Your task to perform on an android device: Open settings Image 0: 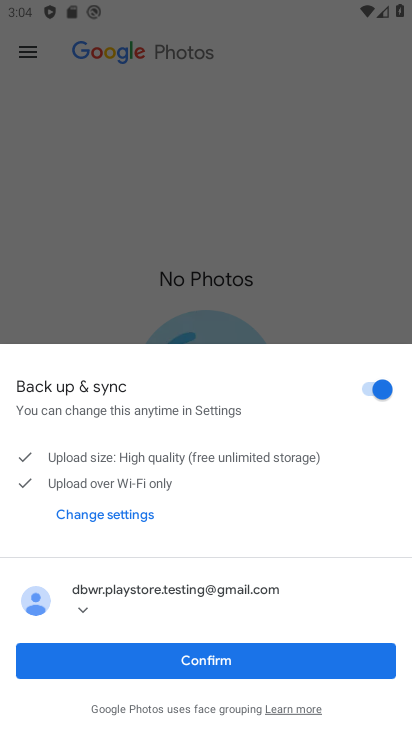
Step 0: click (218, 661)
Your task to perform on an android device: Open settings Image 1: 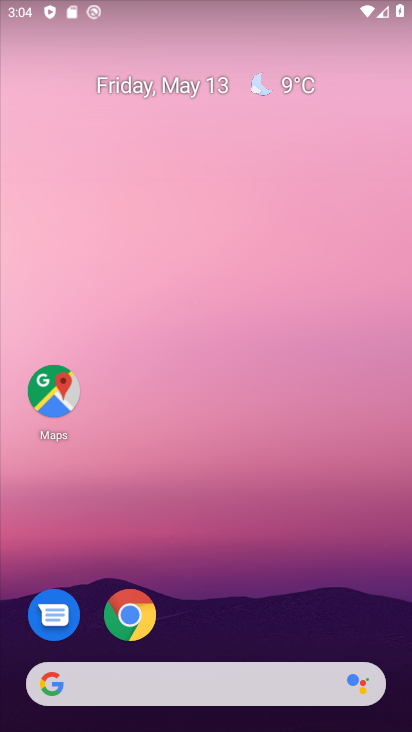
Step 1: drag from (306, 687) to (198, 118)
Your task to perform on an android device: Open settings Image 2: 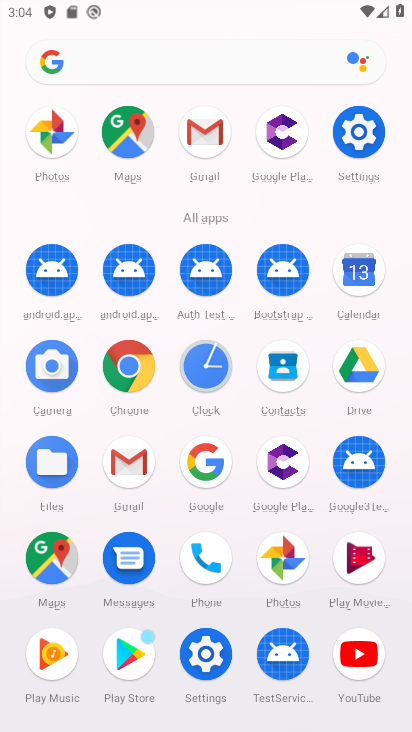
Step 2: drag from (293, 571) to (191, 160)
Your task to perform on an android device: Open settings Image 3: 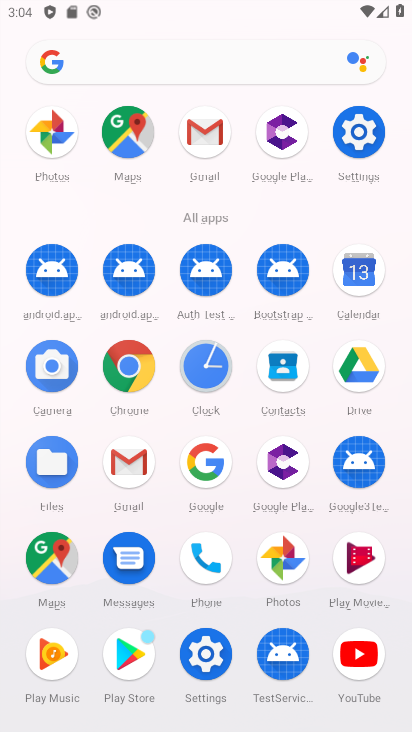
Step 3: click (252, 333)
Your task to perform on an android device: Open settings Image 4: 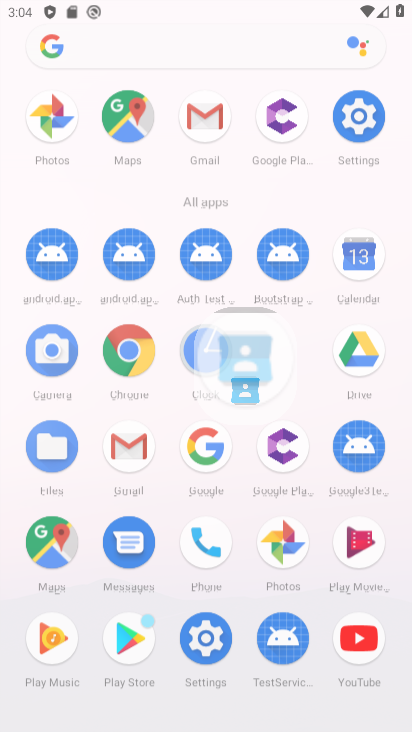
Step 4: click (266, 341)
Your task to perform on an android device: Open settings Image 5: 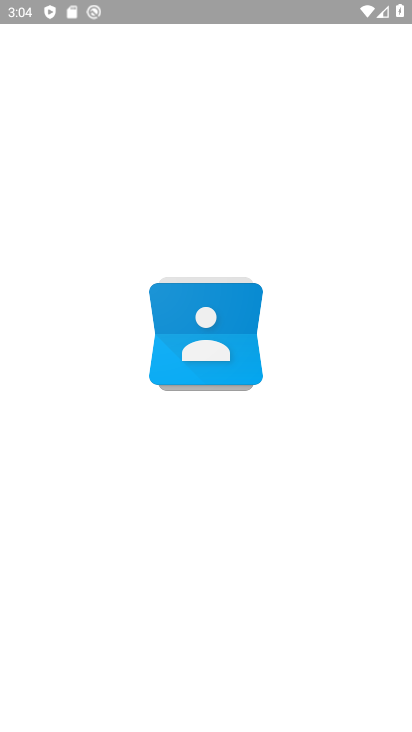
Step 5: press back button
Your task to perform on an android device: Open settings Image 6: 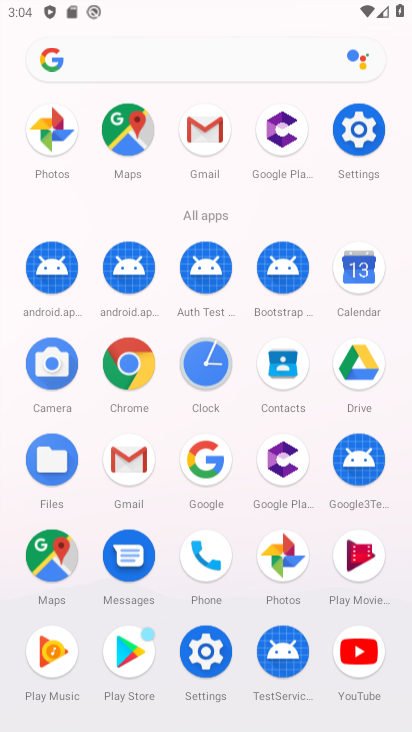
Step 6: click (352, 140)
Your task to perform on an android device: Open settings Image 7: 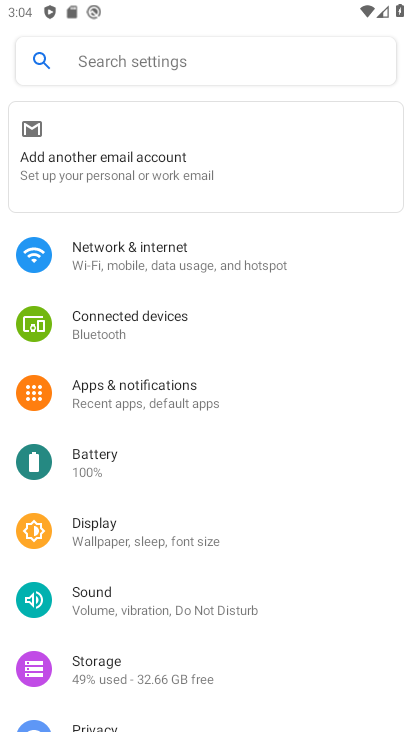
Step 7: task complete